Your task to perform on an android device: change your default location settings in chrome Image 0: 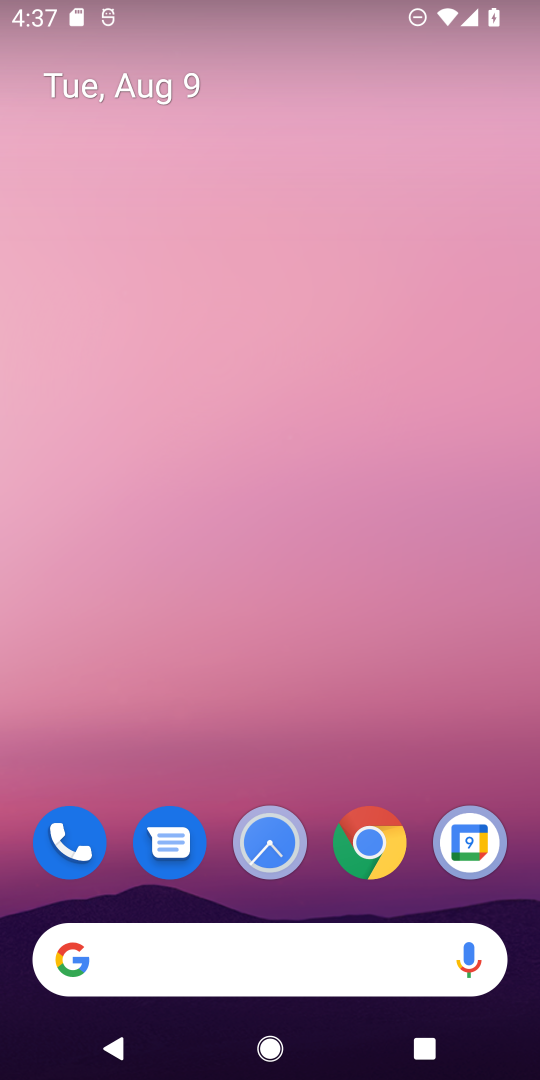
Step 0: drag from (395, 932) to (399, 137)
Your task to perform on an android device: change your default location settings in chrome Image 1: 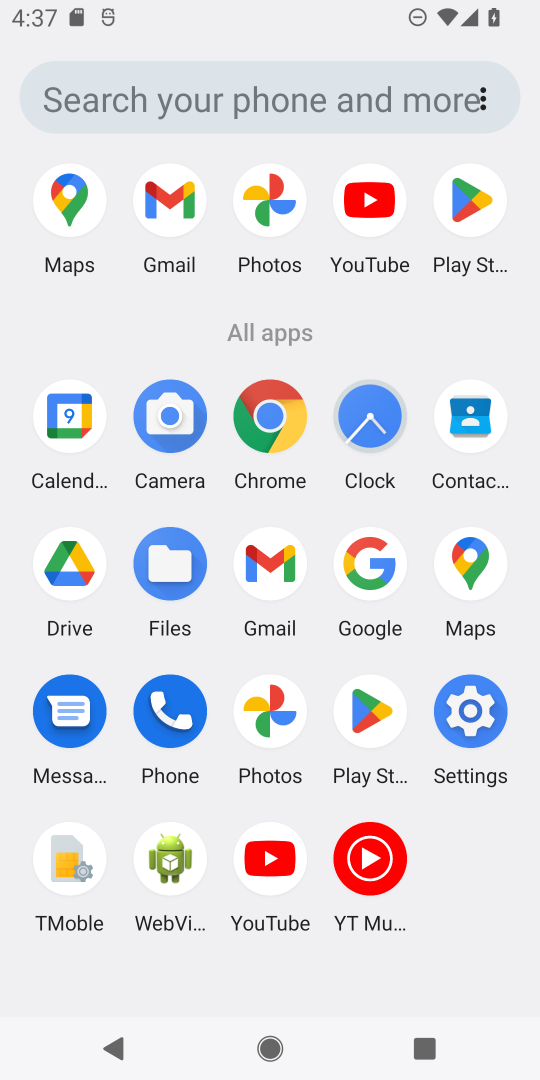
Step 1: click (284, 405)
Your task to perform on an android device: change your default location settings in chrome Image 2: 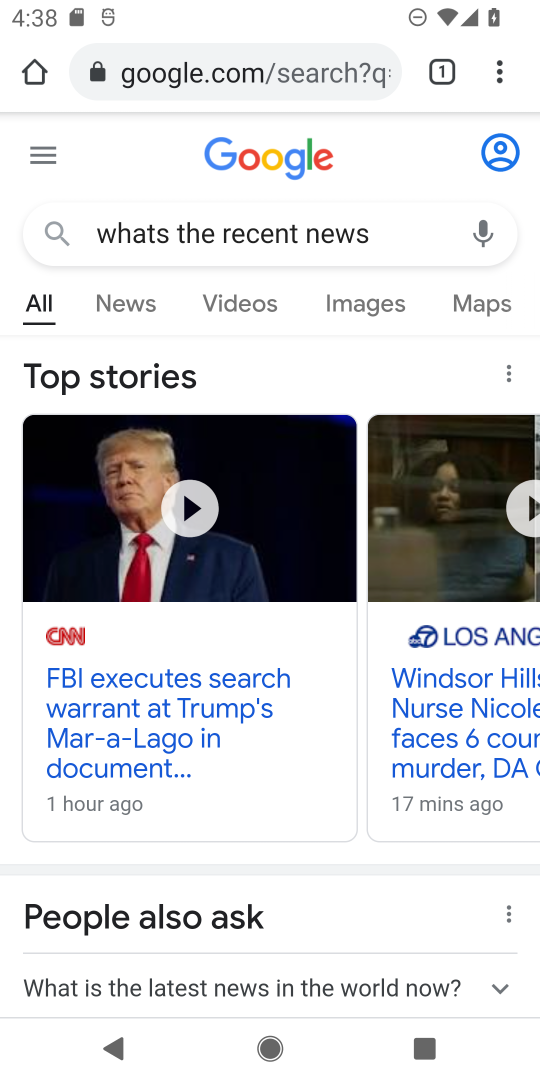
Step 2: click (505, 70)
Your task to perform on an android device: change your default location settings in chrome Image 3: 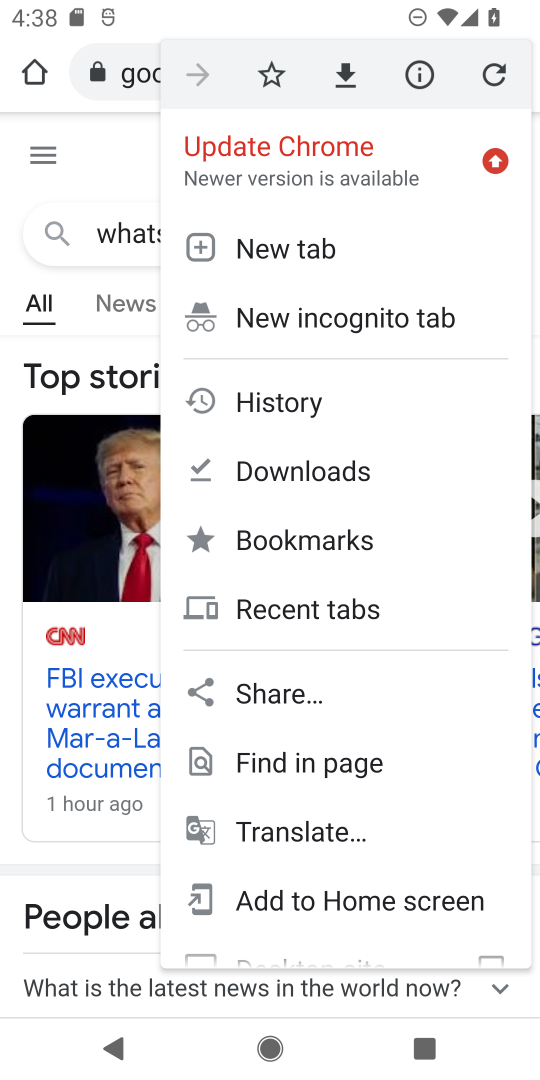
Step 3: drag from (445, 795) to (467, 258)
Your task to perform on an android device: change your default location settings in chrome Image 4: 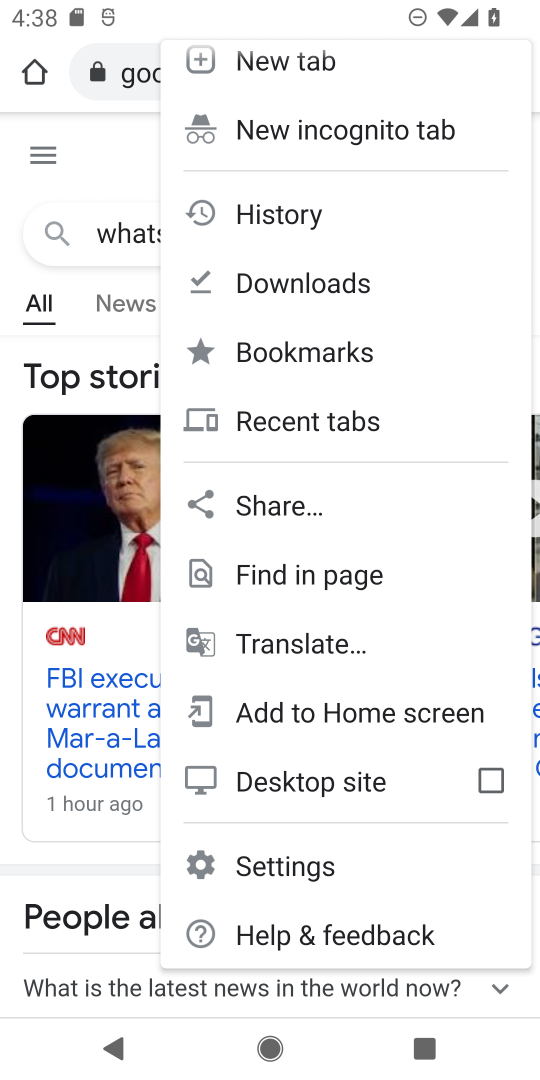
Step 4: click (305, 860)
Your task to perform on an android device: change your default location settings in chrome Image 5: 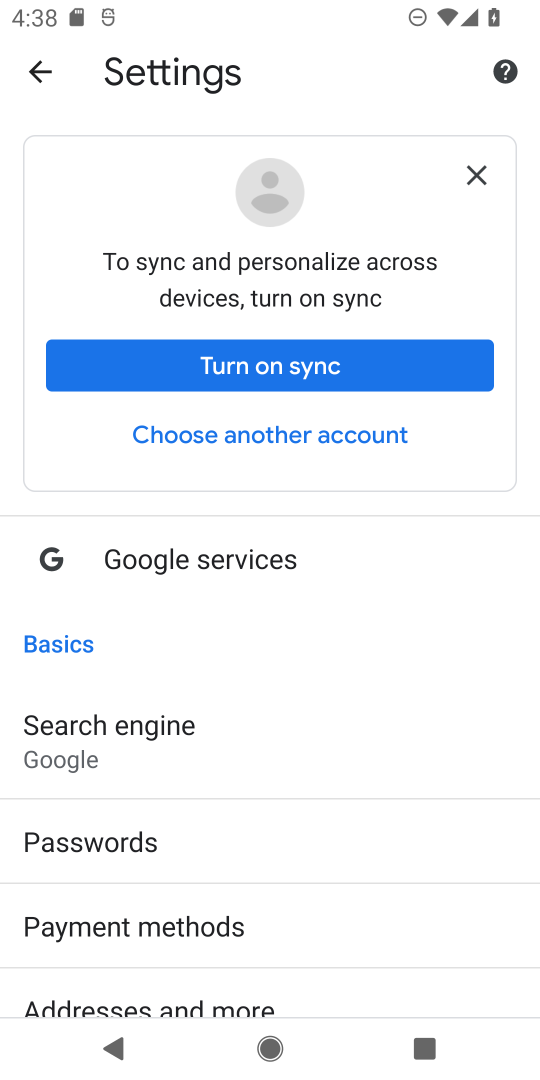
Step 5: drag from (380, 921) to (367, 158)
Your task to perform on an android device: change your default location settings in chrome Image 6: 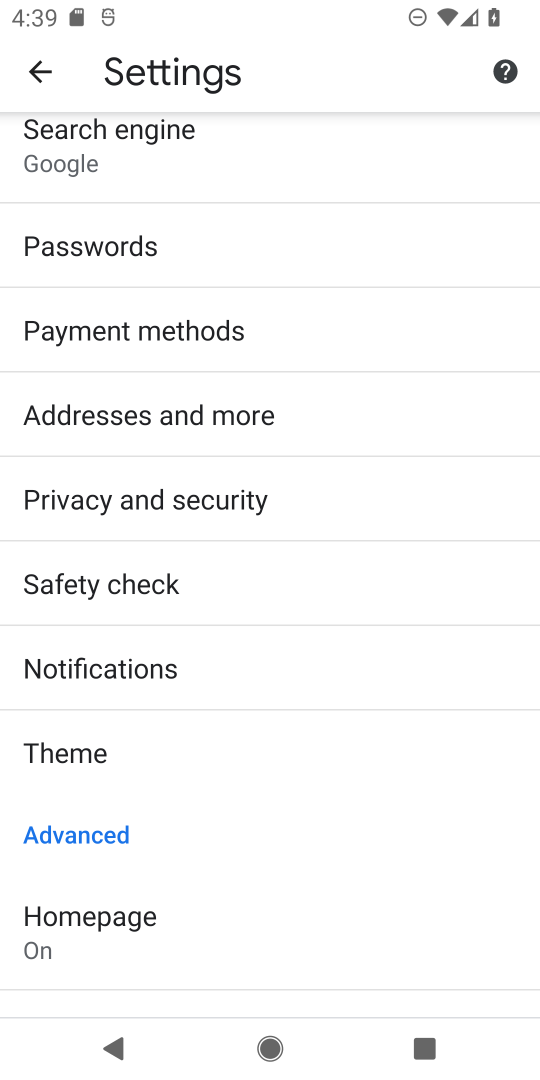
Step 6: drag from (412, 930) to (334, 271)
Your task to perform on an android device: change your default location settings in chrome Image 7: 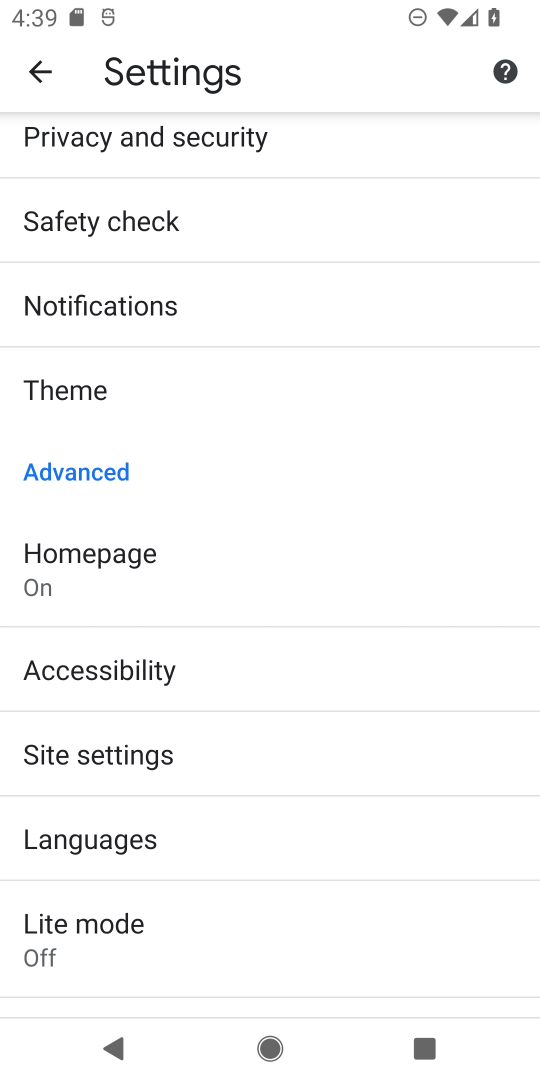
Step 7: click (262, 782)
Your task to perform on an android device: change your default location settings in chrome Image 8: 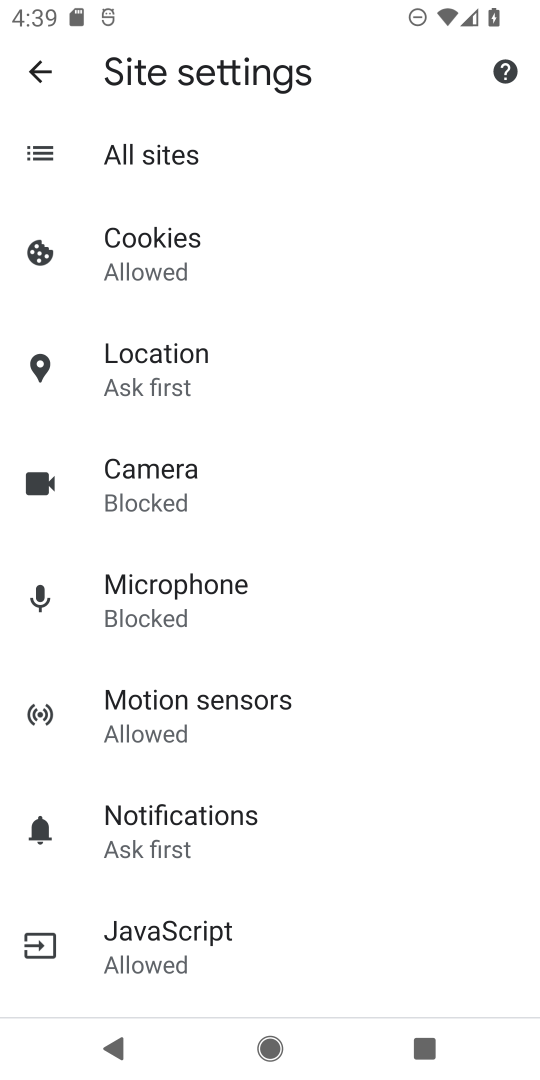
Step 8: click (188, 373)
Your task to perform on an android device: change your default location settings in chrome Image 9: 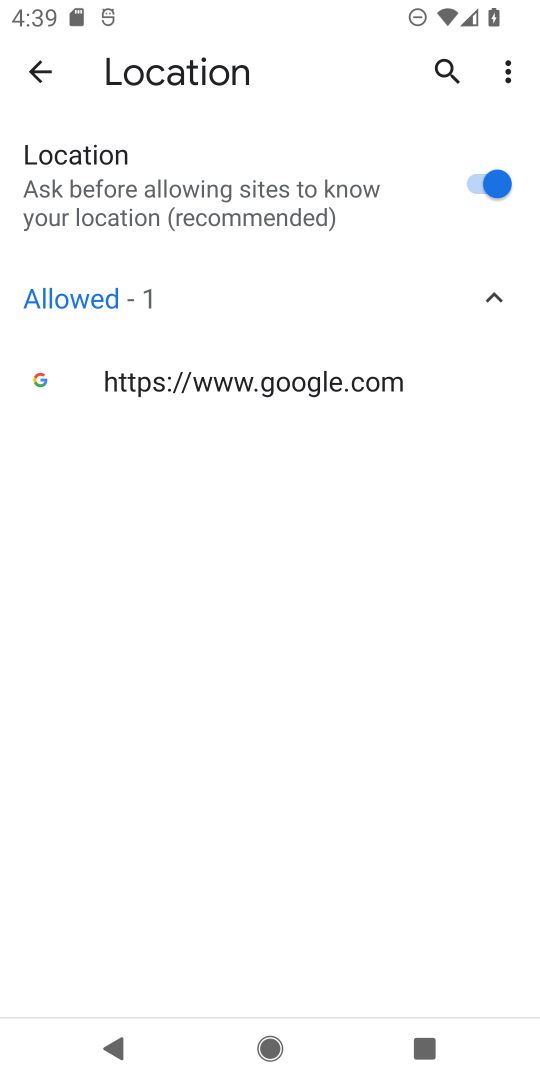
Step 9: click (476, 183)
Your task to perform on an android device: change your default location settings in chrome Image 10: 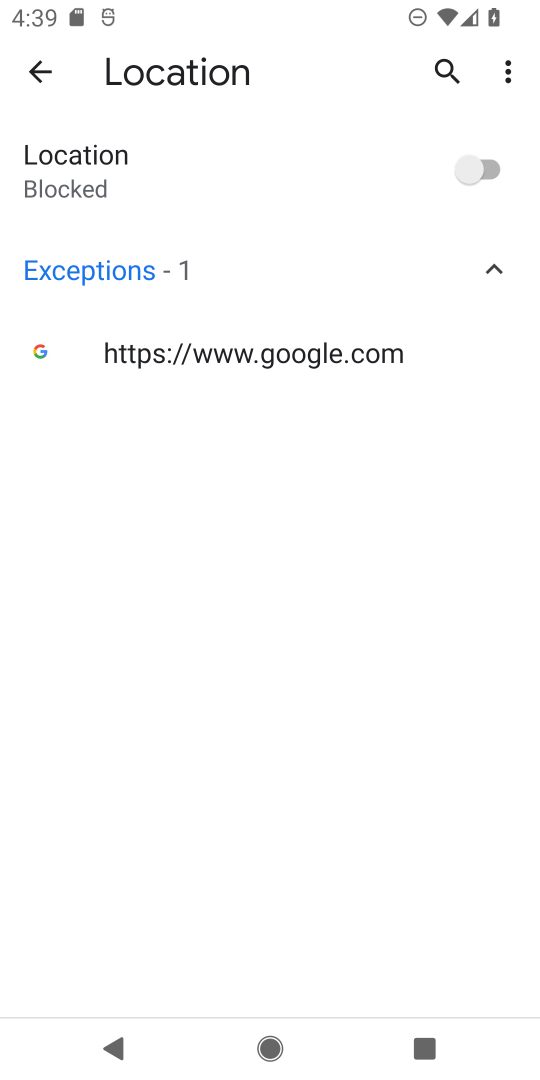
Step 10: task complete